Your task to perform on an android device: add a contact in the contacts app Image 0: 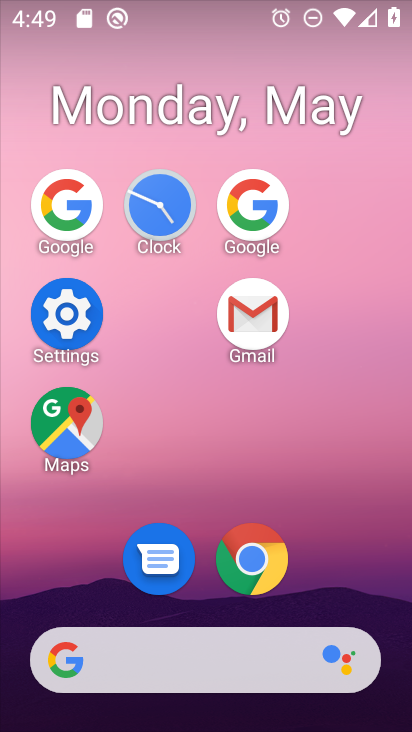
Step 0: drag from (352, 591) to (339, 153)
Your task to perform on an android device: add a contact in the contacts app Image 1: 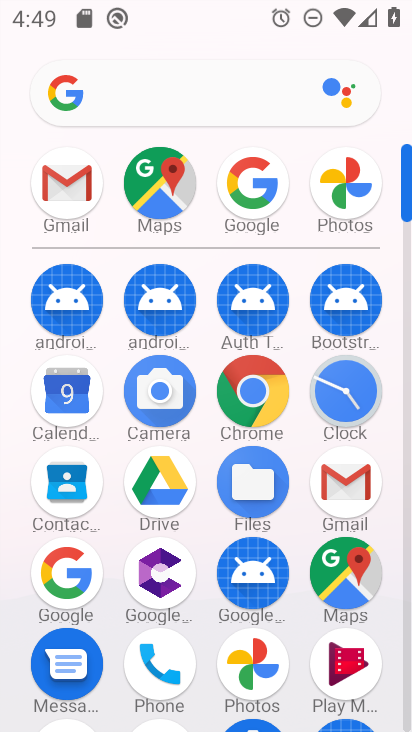
Step 1: click (88, 490)
Your task to perform on an android device: add a contact in the contacts app Image 2: 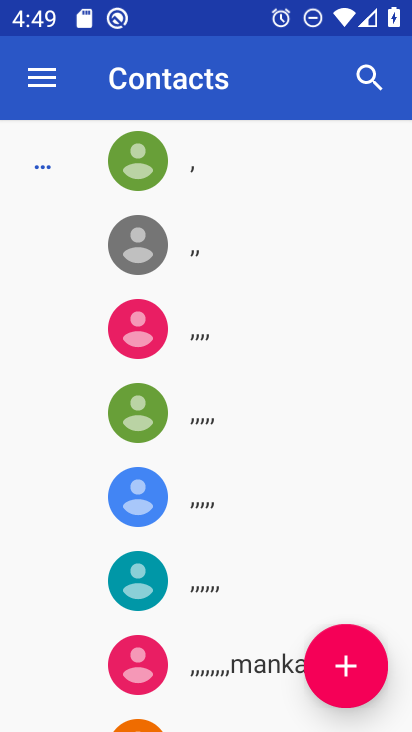
Step 2: click (354, 645)
Your task to perform on an android device: add a contact in the contacts app Image 3: 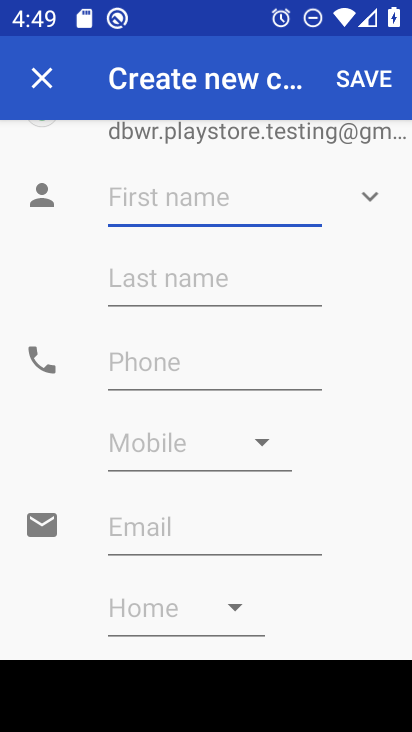
Step 3: type "books"
Your task to perform on an android device: add a contact in the contacts app Image 4: 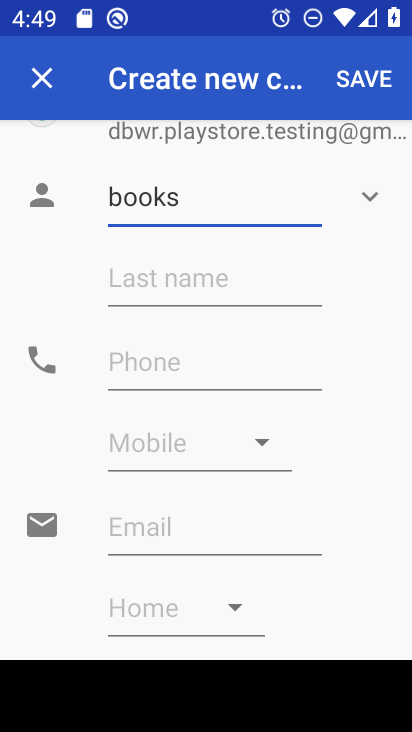
Step 4: click (164, 359)
Your task to perform on an android device: add a contact in the contacts app Image 5: 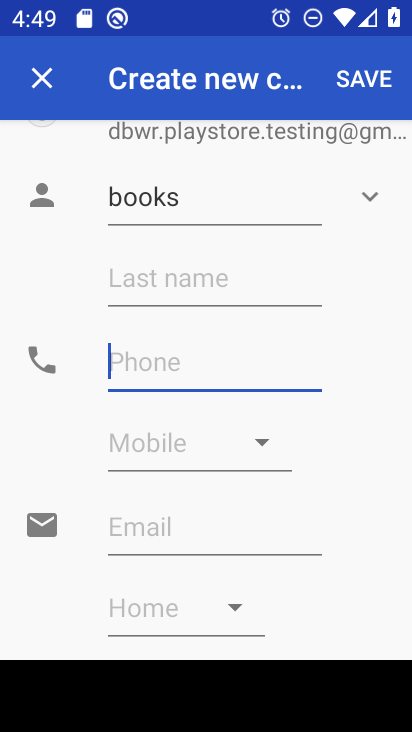
Step 5: type "9987665656"
Your task to perform on an android device: add a contact in the contacts app Image 6: 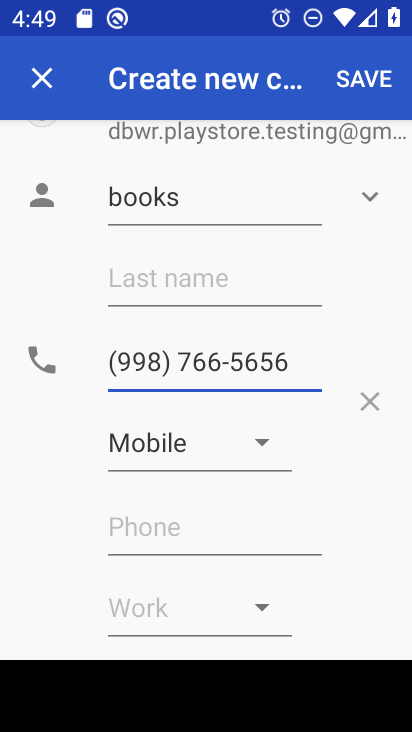
Step 6: click (376, 83)
Your task to perform on an android device: add a contact in the contacts app Image 7: 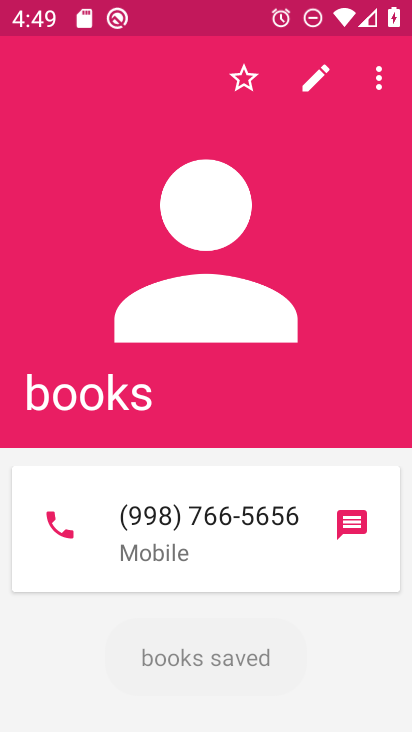
Step 7: task complete